Your task to perform on an android device: clear all cookies in the chrome app Image 0: 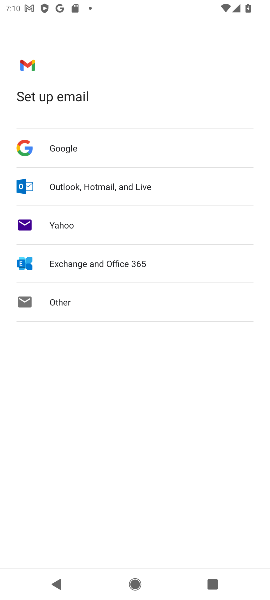
Step 0: press home button
Your task to perform on an android device: clear all cookies in the chrome app Image 1: 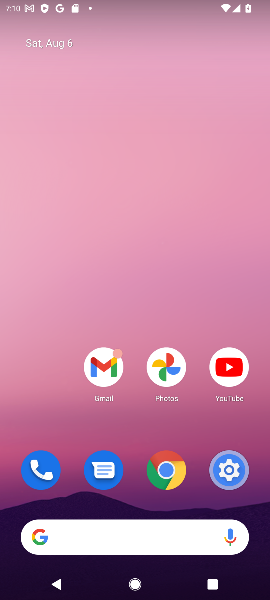
Step 1: drag from (173, 504) to (196, 3)
Your task to perform on an android device: clear all cookies in the chrome app Image 2: 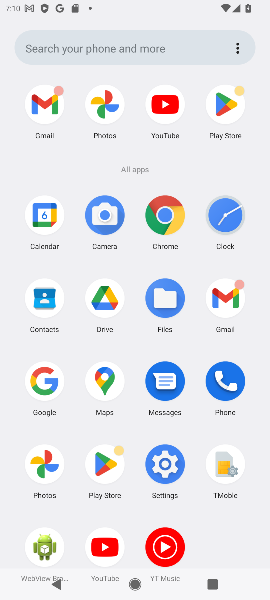
Step 2: click (172, 221)
Your task to perform on an android device: clear all cookies in the chrome app Image 3: 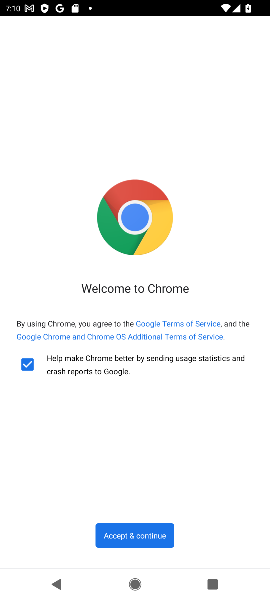
Step 3: click (167, 533)
Your task to perform on an android device: clear all cookies in the chrome app Image 4: 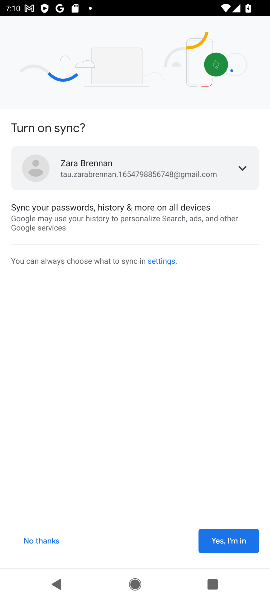
Step 4: click (229, 548)
Your task to perform on an android device: clear all cookies in the chrome app Image 5: 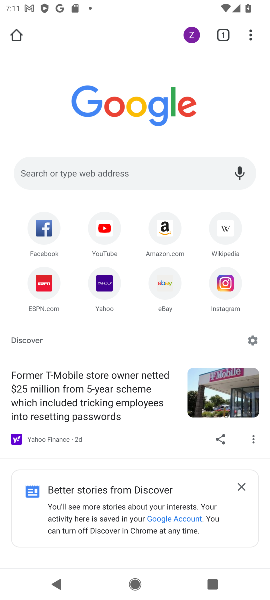
Step 5: click (254, 39)
Your task to perform on an android device: clear all cookies in the chrome app Image 6: 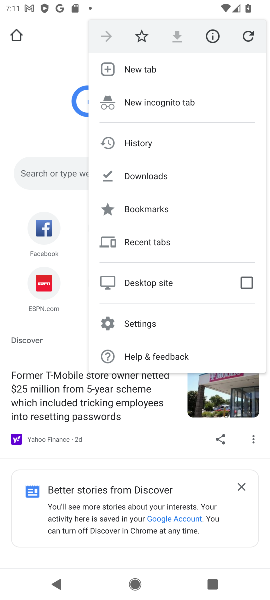
Step 6: click (117, 317)
Your task to perform on an android device: clear all cookies in the chrome app Image 7: 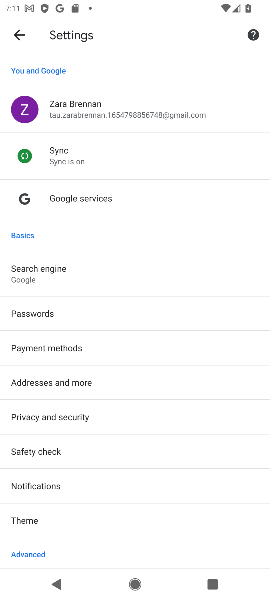
Step 7: click (17, 33)
Your task to perform on an android device: clear all cookies in the chrome app Image 8: 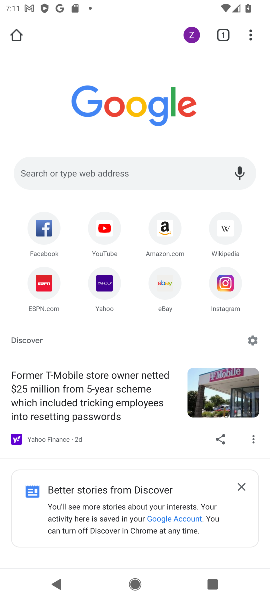
Step 8: click (252, 35)
Your task to perform on an android device: clear all cookies in the chrome app Image 9: 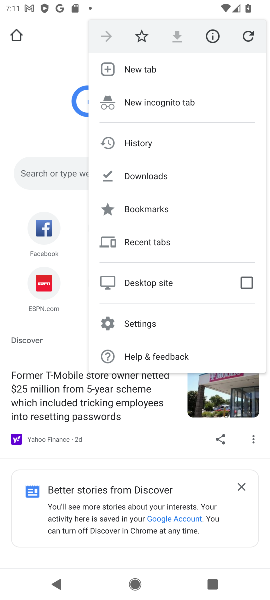
Step 9: click (136, 147)
Your task to perform on an android device: clear all cookies in the chrome app Image 10: 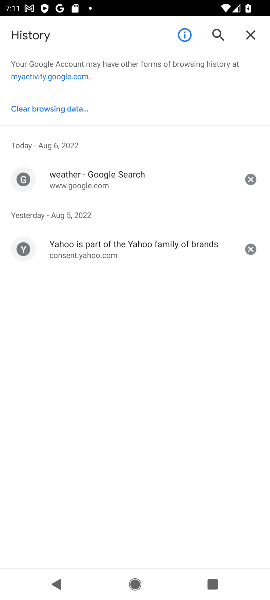
Step 10: click (70, 111)
Your task to perform on an android device: clear all cookies in the chrome app Image 11: 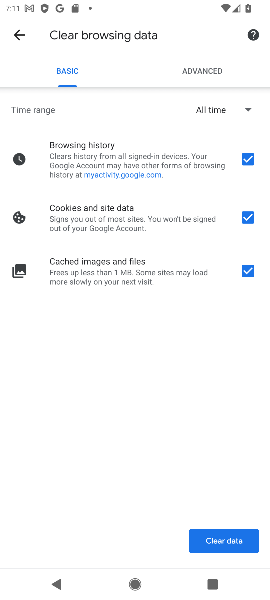
Step 11: click (242, 267)
Your task to perform on an android device: clear all cookies in the chrome app Image 12: 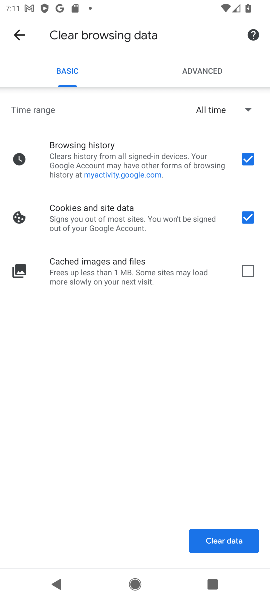
Step 12: click (251, 162)
Your task to perform on an android device: clear all cookies in the chrome app Image 13: 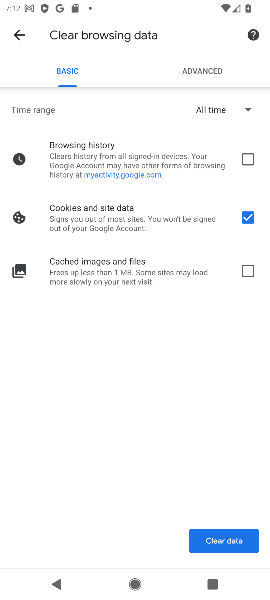
Step 13: click (242, 542)
Your task to perform on an android device: clear all cookies in the chrome app Image 14: 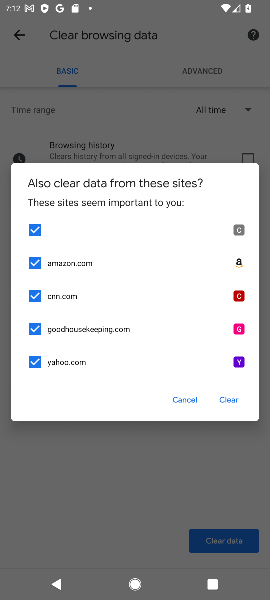
Step 14: click (226, 403)
Your task to perform on an android device: clear all cookies in the chrome app Image 15: 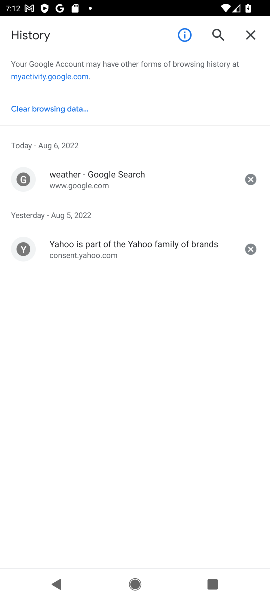
Step 15: task complete